Your task to perform on an android device: change the clock display to digital Image 0: 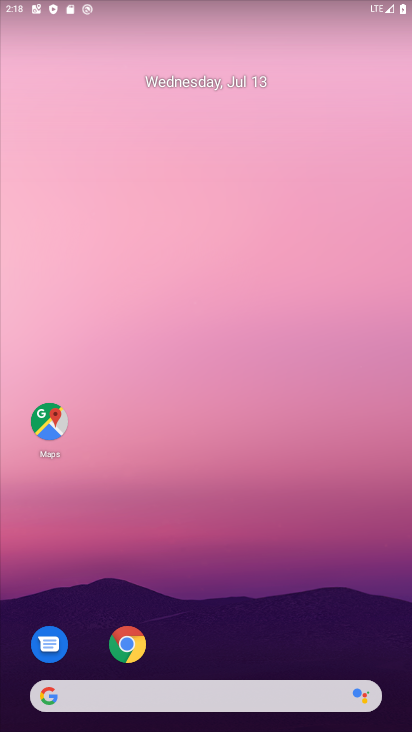
Step 0: drag from (252, 596) to (211, 64)
Your task to perform on an android device: change the clock display to digital Image 1: 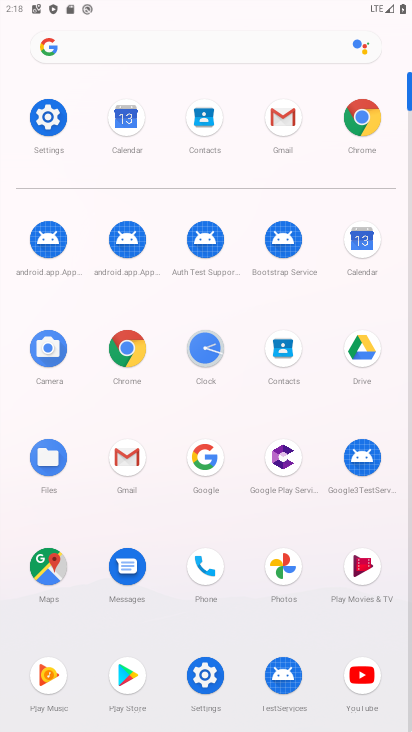
Step 1: click (216, 351)
Your task to perform on an android device: change the clock display to digital Image 2: 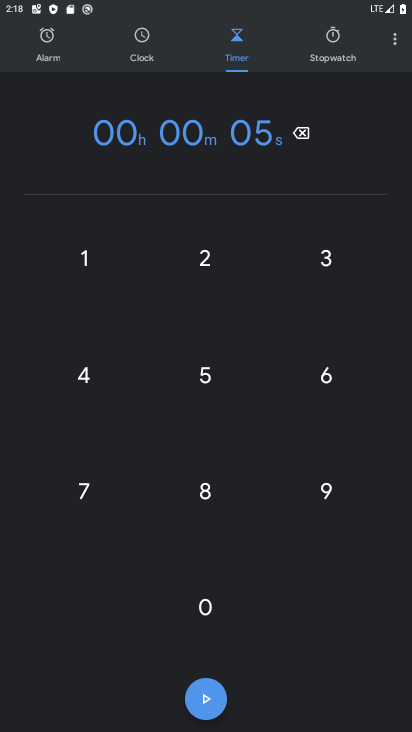
Step 2: click (395, 40)
Your task to perform on an android device: change the clock display to digital Image 3: 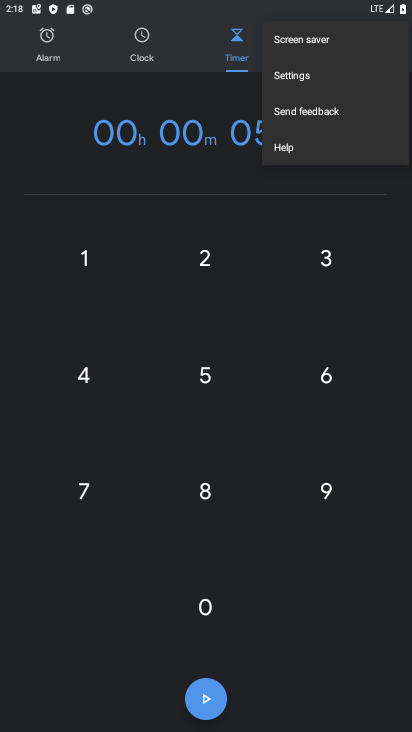
Step 3: click (300, 89)
Your task to perform on an android device: change the clock display to digital Image 4: 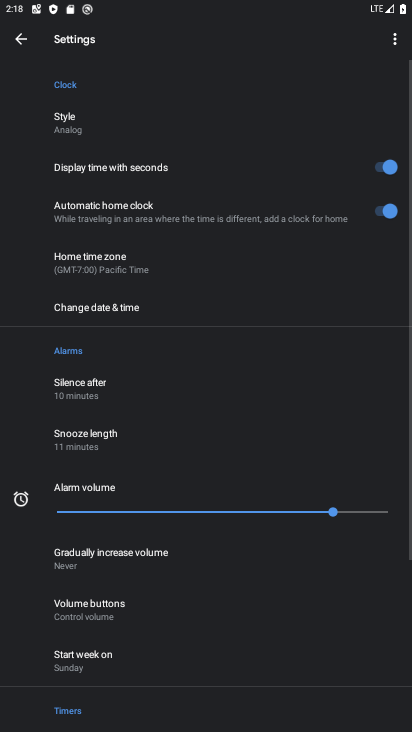
Step 4: click (74, 126)
Your task to perform on an android device: change the clock display to digital Image 5: 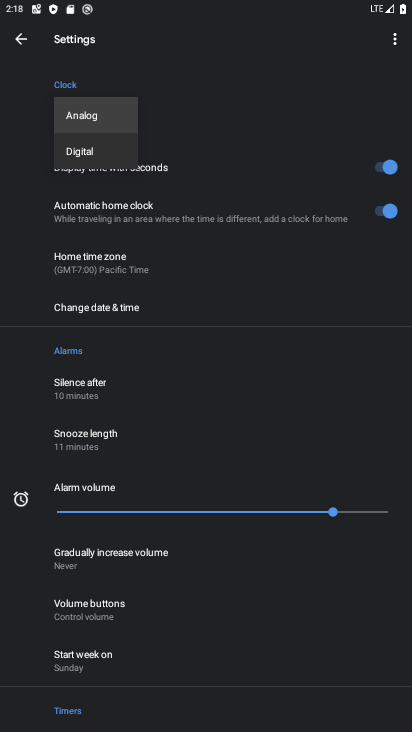
Step 5: click (91, 158)
Your task to perform on an android device: change the clock display to digital Image 6: 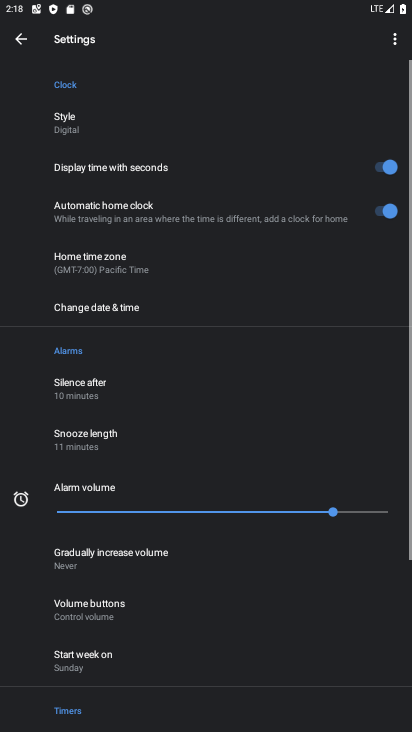
Step 6: task complete